Your task to perform on an android device: check storage Image 0: 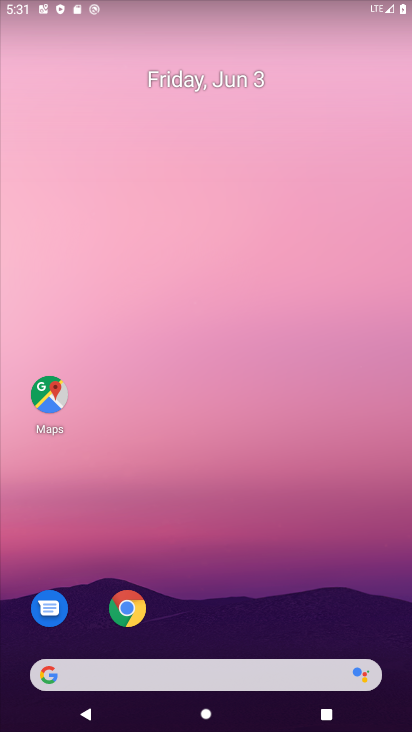
Step 0: drag from (215, 623) to (105, 183)
Your task to perform on an android device: check storage Image 1: 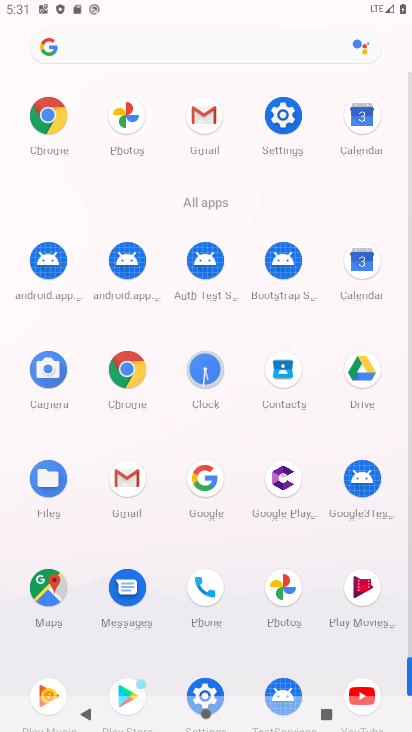
Step 1: click (297, 116)
Your task to perform on an android device: check storage Image 2: 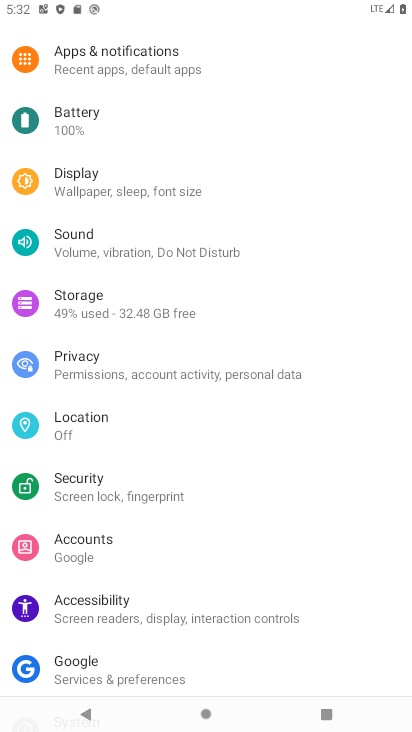
Step 2: click (120, 287)
Your task to perform on an android device: check storage Image 3: 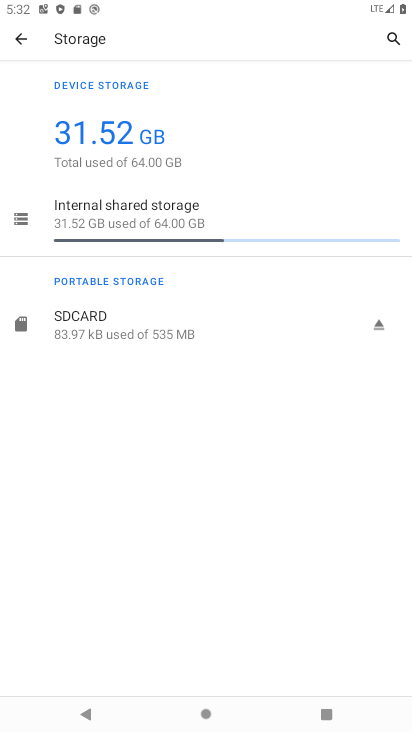
Step 3: task complete